Your task to perform on an android device: What's on my calendar tomorrow? Image 0: 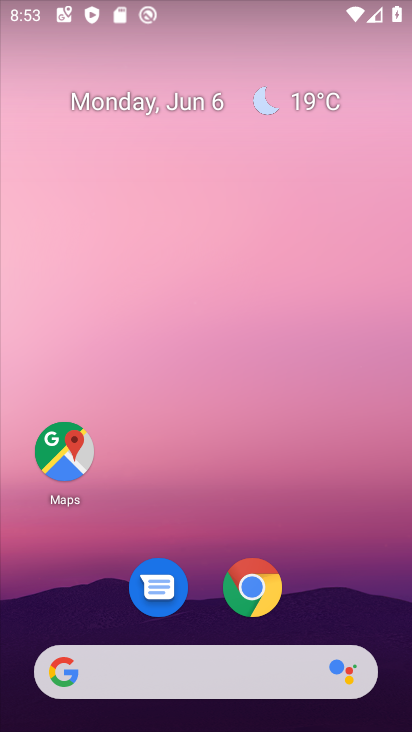
Step 0: drag from (150, 668) to (189, 191)
Your task to perform on an android device: What's on my calendar tomorrow? Image 1: 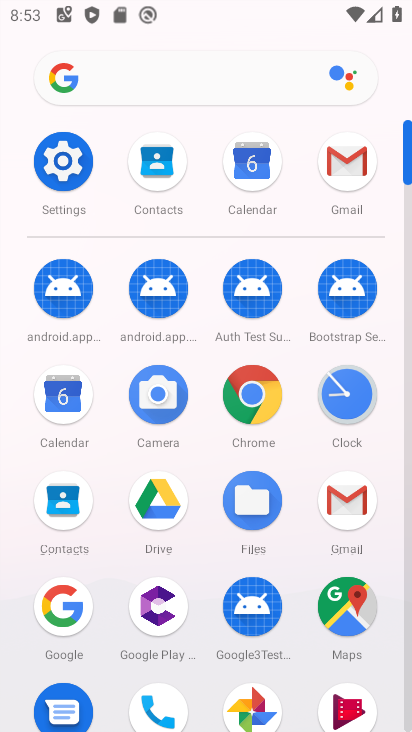
Step 1: click (65, 397)
Your task to perform on an android device: What's on my calendar tomorrow? Image 2: 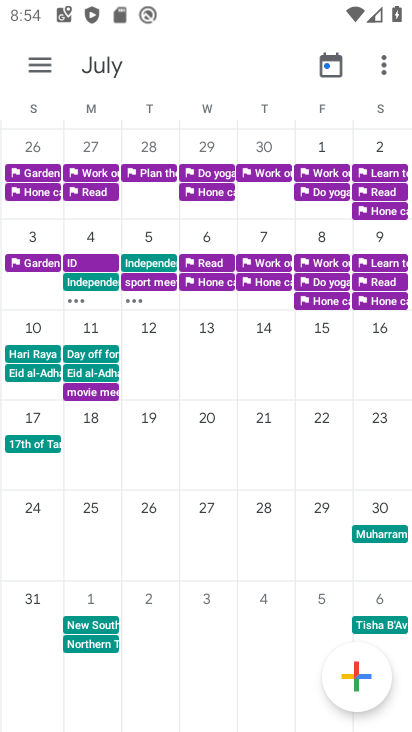
Step 2: click (33, 59)
Your task to perform on an android device: What's on my calendar tomorrow? Image 3: 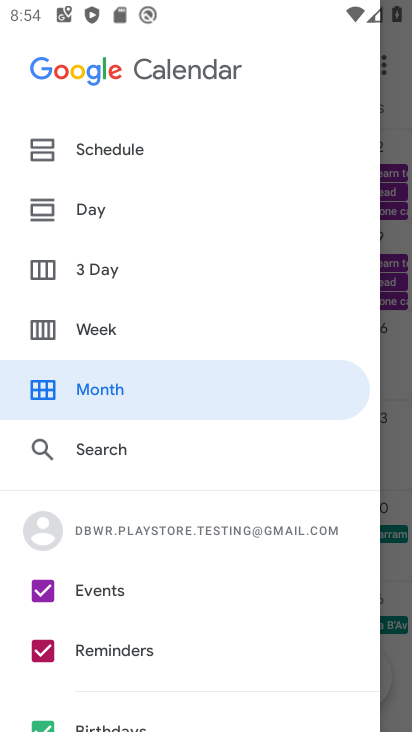
Step 3: click (111, 142)
Your task to perform on an android device: What's on my calendar tomorrow? Image 4: 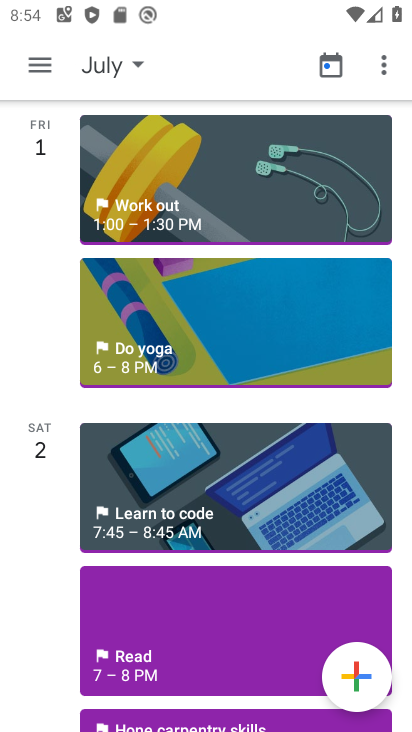
Step 4: drag from (53, 173) to (48, 234)
Your task to perform on an android device: What's on my calendar tomorrow? Image 5: 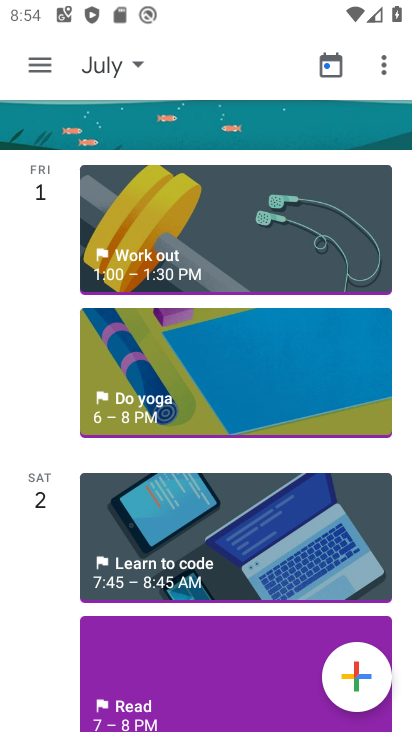
Step 5: click (117, 62)
Your task to perform on an android device: What's on my calendar tomorrow? Image 6: 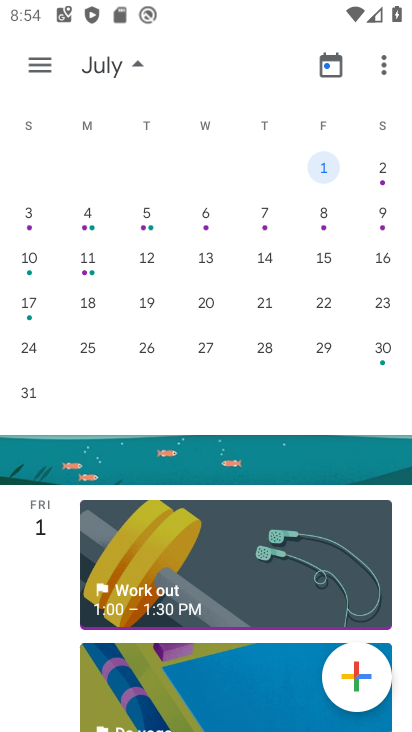
Step 6: drag from (66, 257) to (406, 243)
Your task to perform on an android device: What's on my calendar tomorrow? Image 7: 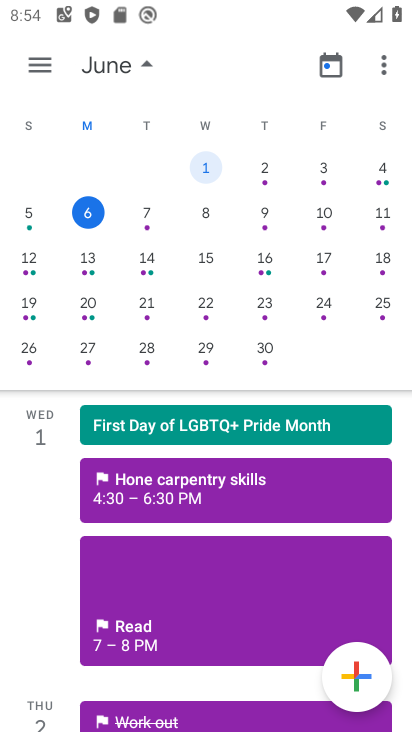
Step 7: click (141, 223)
Your task to perform on an android device: What's on my calendar tomorrow? Image 8: 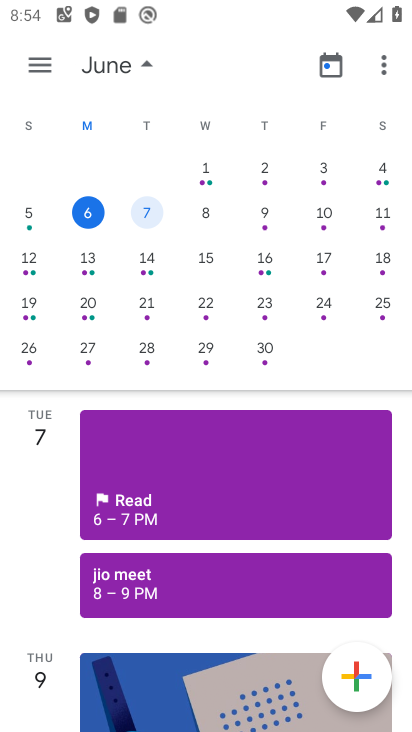
Step 8: click (129, 62)
Your task to perform on an android device: What's on my calendar tomorrow? Image 9: 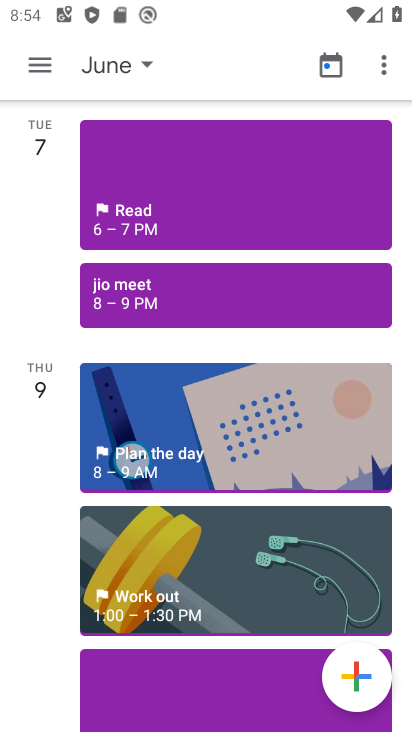
Step 9: task complete